Your task to perform on an android device: toggle notifications settings in the gmail app Image 0: 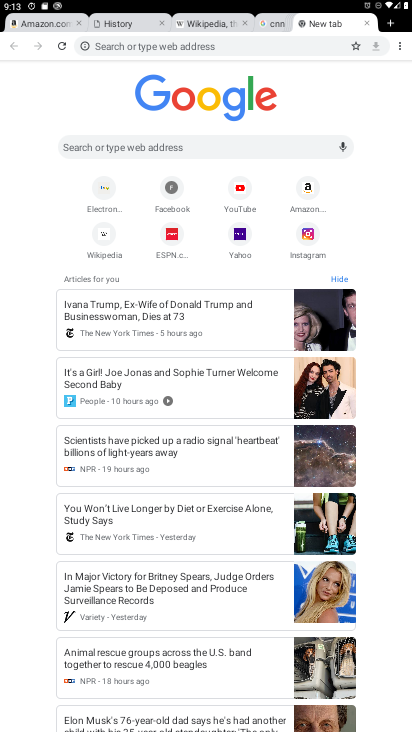
Step 0: press home button
Your task to perform on an android device: toggle notifications settings in the gmail app Image 1: 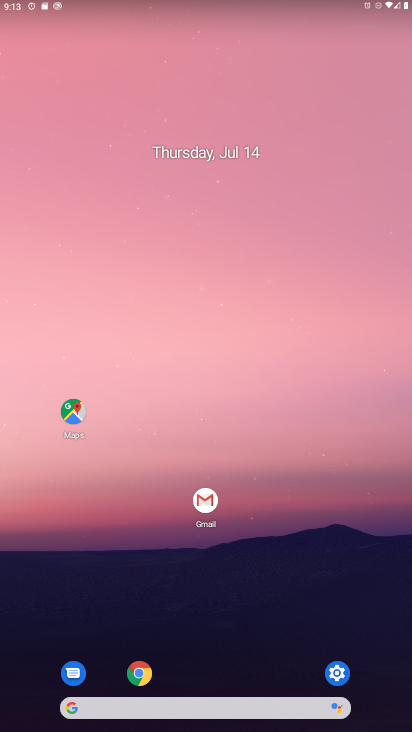
Step 1: click (200, 492)
Your task to perform on an android device: toggle notifications settings in the gmail app Image 2: 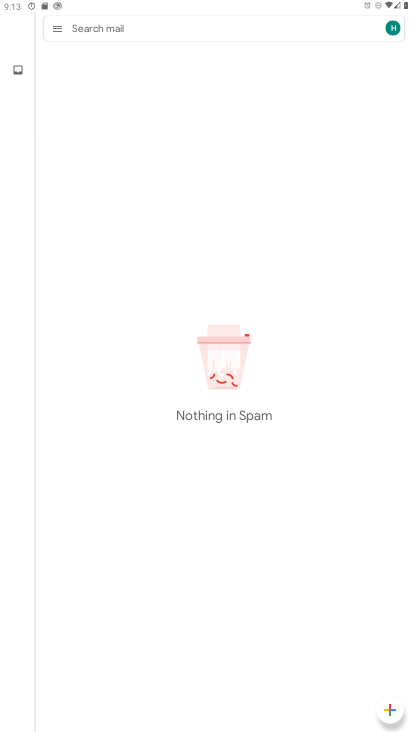
Step 2: click (63, 33)
Your task to perform on an android device: toggle notifications settings in the gmail app Image 3: 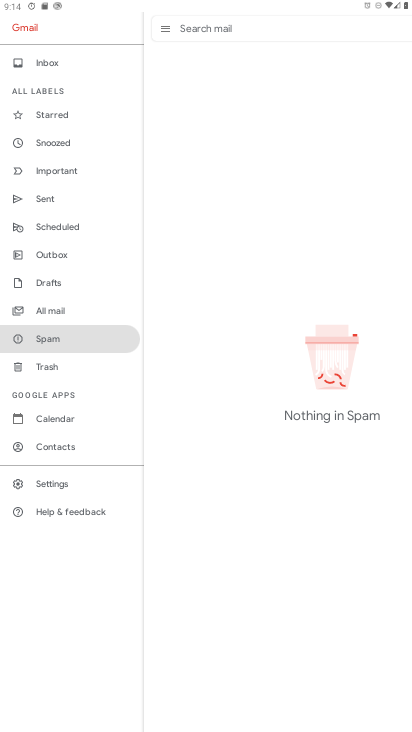
Step 3: click (49, 482)
Your task to perform on an android device: toggle notifications settings in the gmail app Image 4: 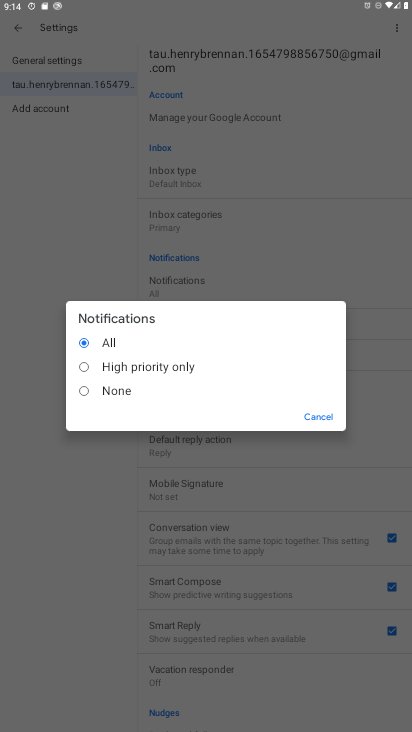
Step 4: task complete